Your task to perform on an android device: delete the emails in spam in the gmail app Image 0: 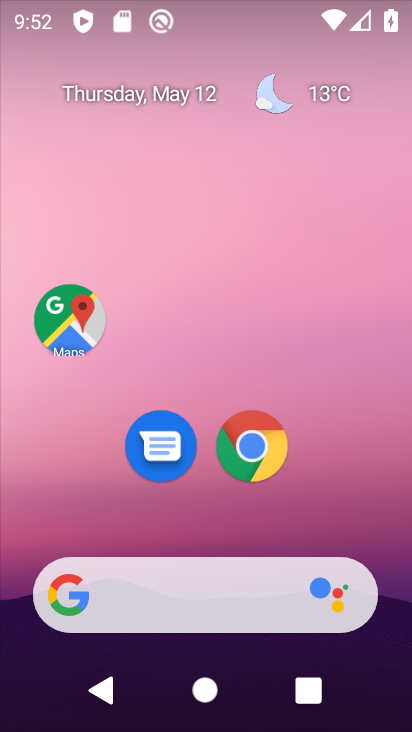
Step 0: drag from (204, 519) to (299, 106)
Your task to perform on an android device: delete the emails in spam in the gmail app Image 1: 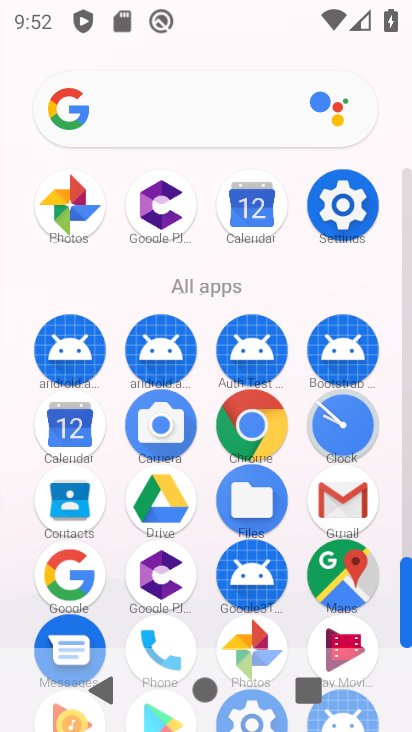
Step 1: click (355, 506)
Your task to perform on an android device: delete the emails in spam in the gmail app Image 2: 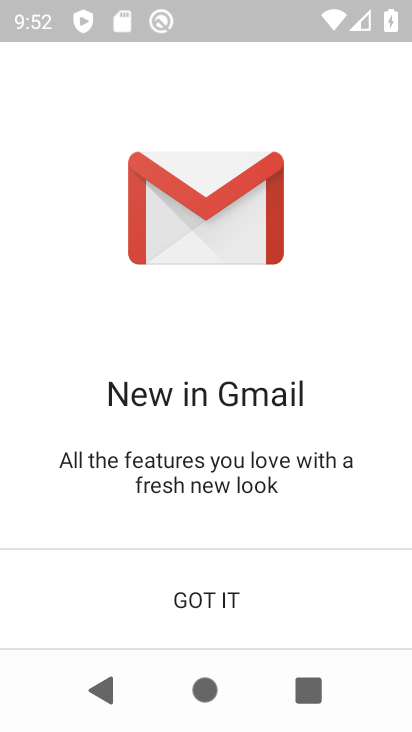
Step 2: click (219, 595)
Your task to perform on an android device: delete the emails in spam in the gmail app Image 3: 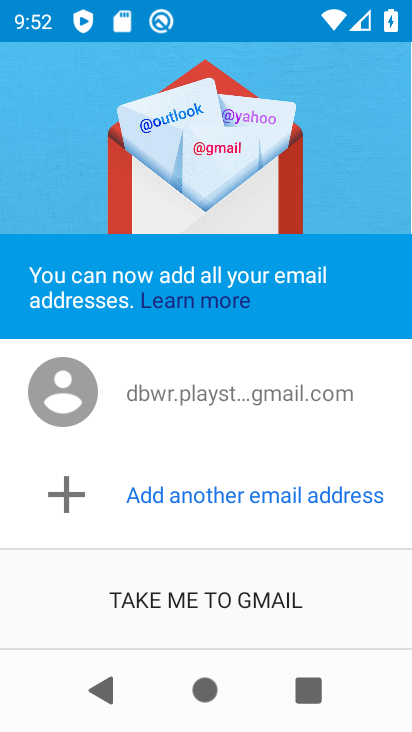
Step 3: click (219, 595)
Your task to perform on an android device: delete the emails in spam in the gmail app Image 4: 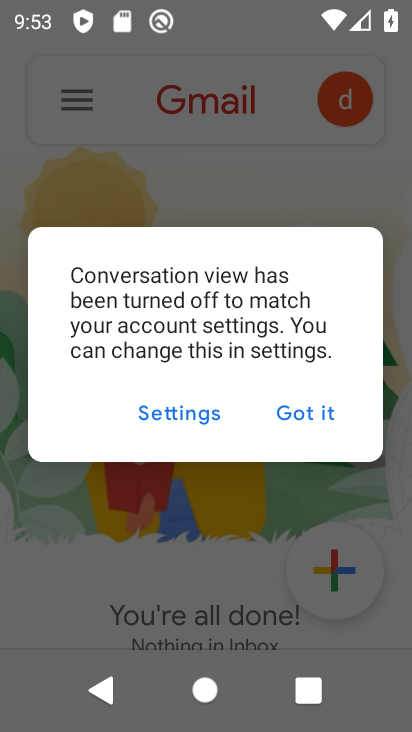
Step 4: click (294, 404)
Your task to perform on an android device: delete the emails in spam in the gmail app Image 5: 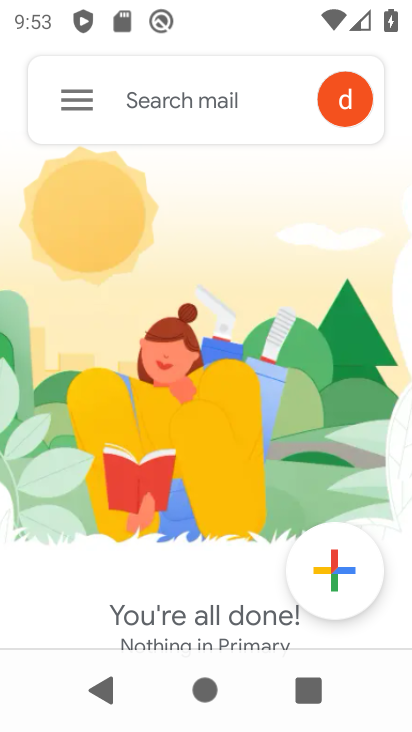
Step 5: click (73, 98)
Your task to perform on an android device: delete the emails in spam in the gmail app Image 6: 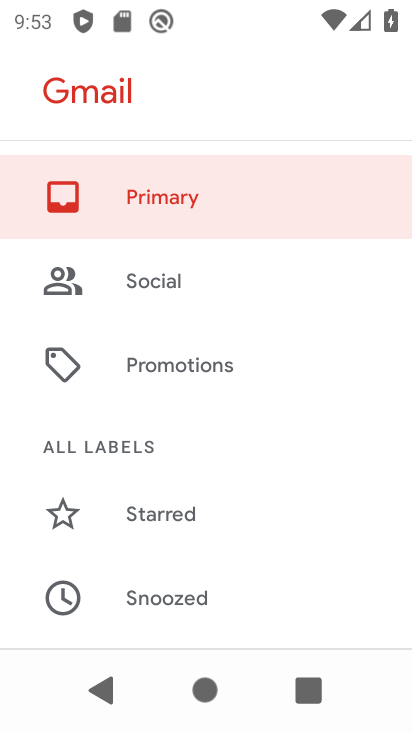
Step 6: drag from (177, 542) to (231, 134)
Your task to perform on an android device: delete the emails in spam in the gmail app Image 7: 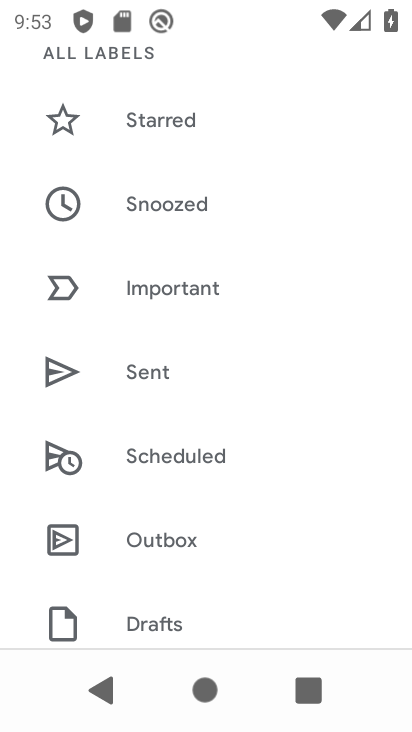
Step 7: drag from (199, 539) to (257, 148)
Your task to perform on an android device: delete the emails in spam in the gmail app Image 8: 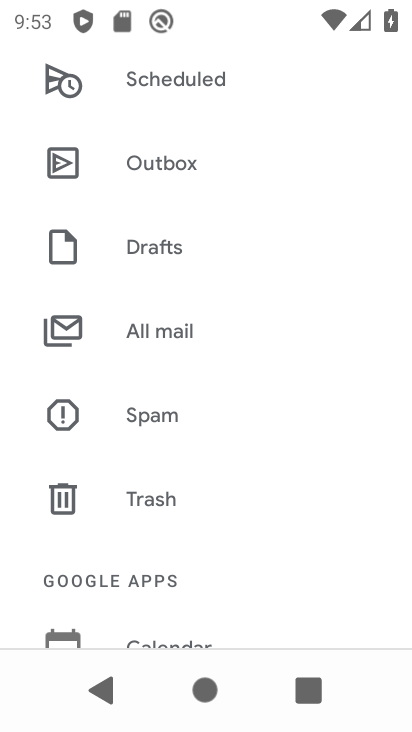
Step 8: click (167, 415)
Your task to perform on an android device: delete the emails in spam in the gmail app Image 9: 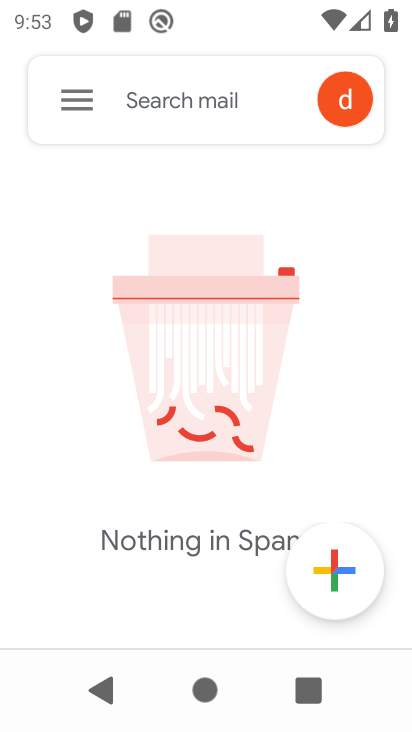
Step 9: task complete